Your task to perform on an android device: show emergency info Image 0: 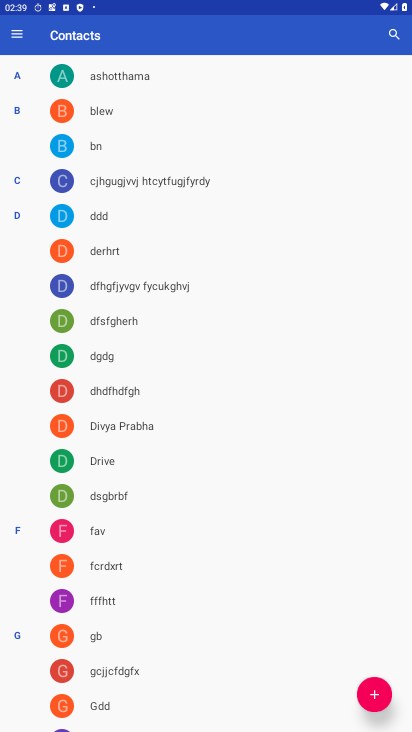
Step 0: press home button
Your task to perform on an android device: show emergency info Image 1: 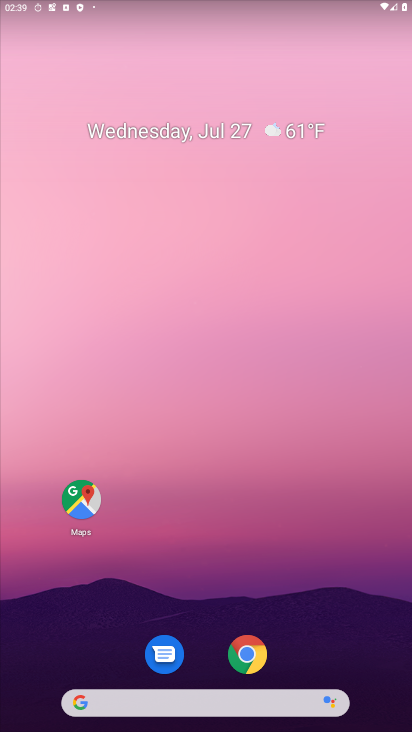
Step 1: drag from (247, 713) to (240, 1)
Your task to perform on an android device: show emergency info Image 2: 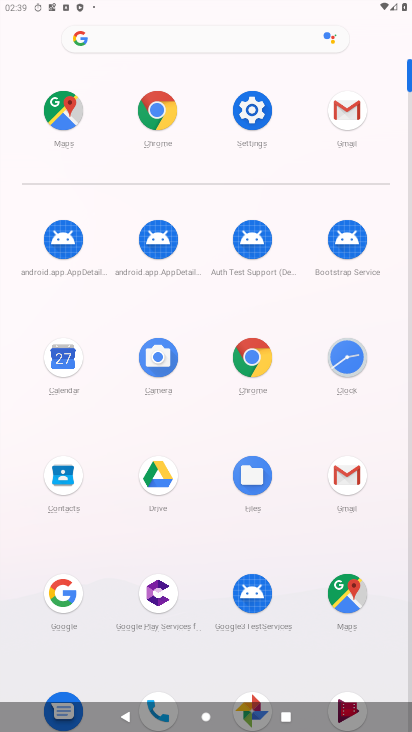
Step 2: click (261, 105)
Your task to perform on an android device: show emergency info Image 3: 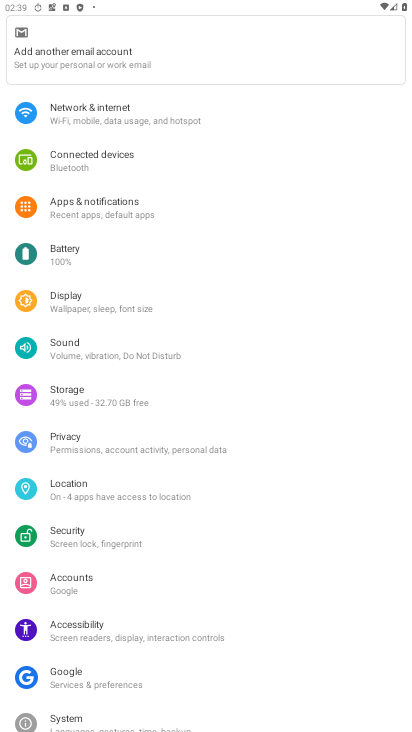
Step 3: drag from (276, 720) to (293, 156)
Your task to perform on an android device: show emergency info Image 4: 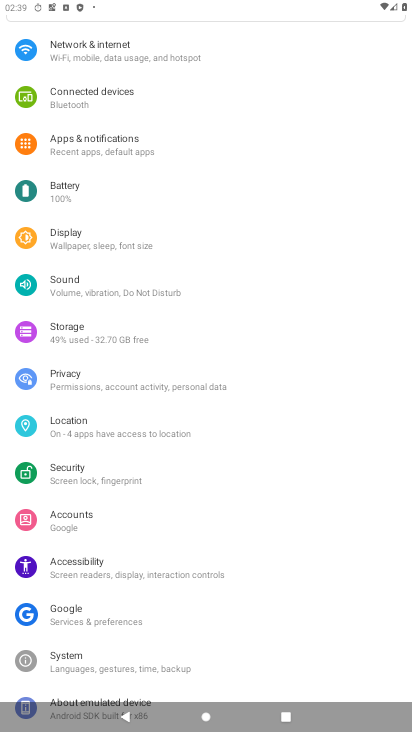
Step 4: click (127, 697)
Your task to perform on an android device: show emergency info Image 5: 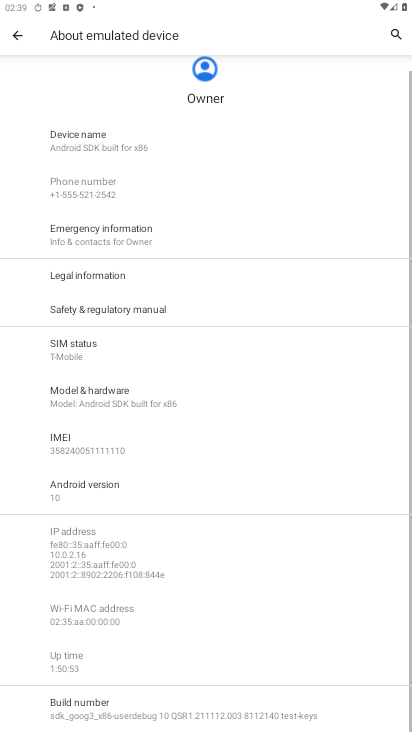
Step 5: click (112, 241)
Your task to perform on an android device: show emergency info Image 6: 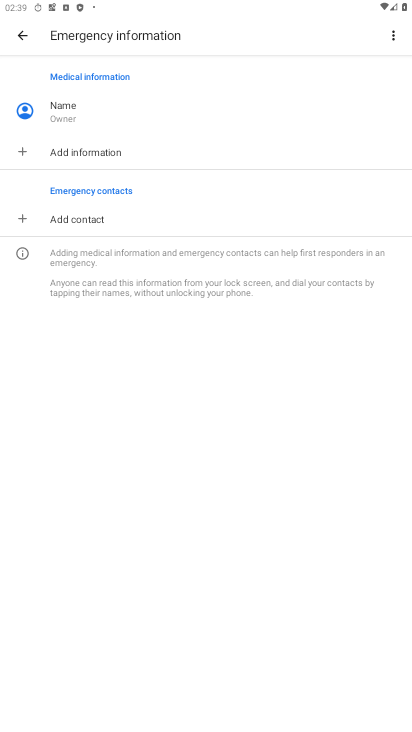
Step 6: task complete